Your task to perform on an android device: toggle translation in the chrome app Image 0: 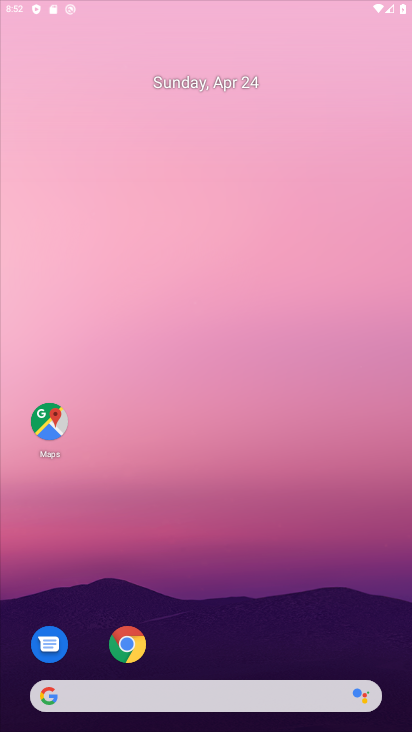
Step 0: press home button
Your task to perform on an android device: toggle translation in the chrome app Image 1: 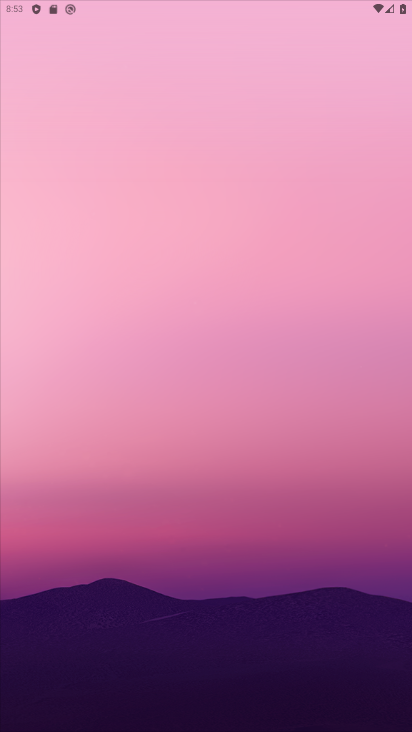
Step 1: press home button
Your task to perform on an android device: toggle translation in the chrome app Image 2: 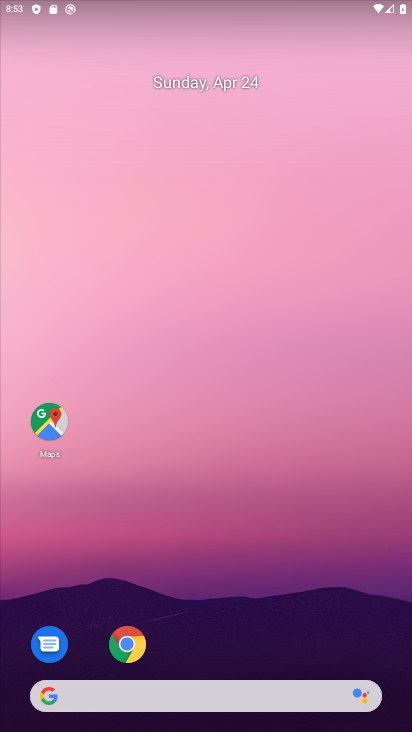
Step 2: drag from (184, 515) to (184, 11)
Your task to perform on an android device: toggle translation in the chrome app Image 3: 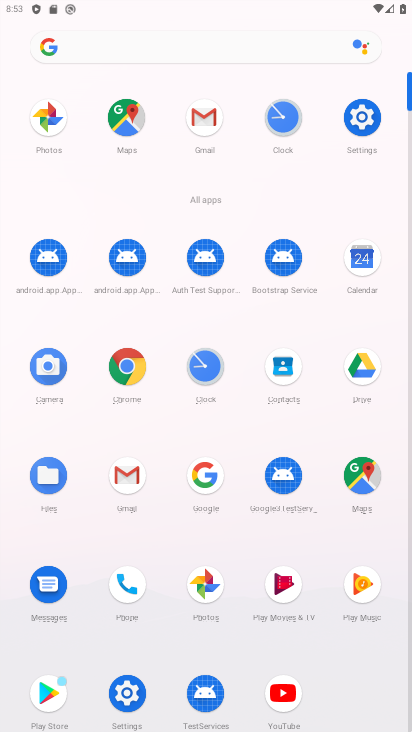
Step 3: click (134, 368)
Your task to perform on an android device: toggle translation in the chrome app Image 4: 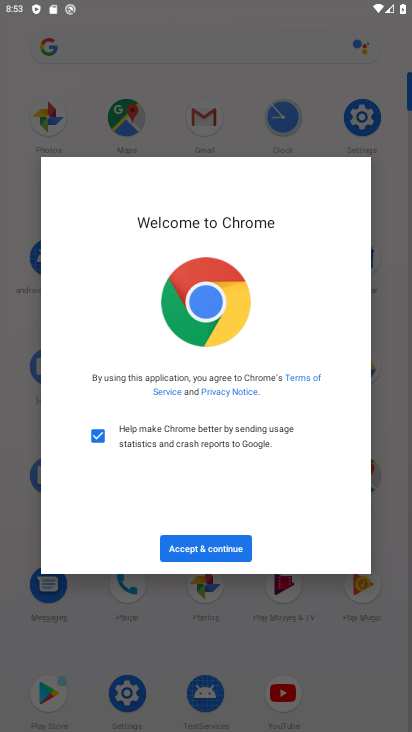
Step 4: click (224, 551)
Your task to perform on an android device: toggle translation in the chrome app Image 5: 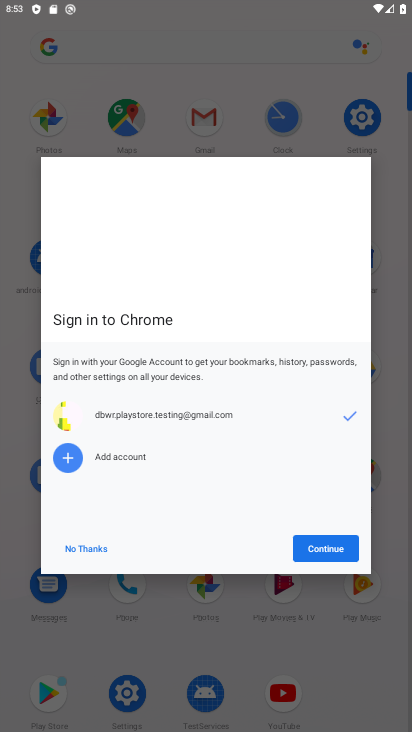
Step 5: click (342, 551)
Your task to perform on an android device: toggle translation in the chrome app Image 6: 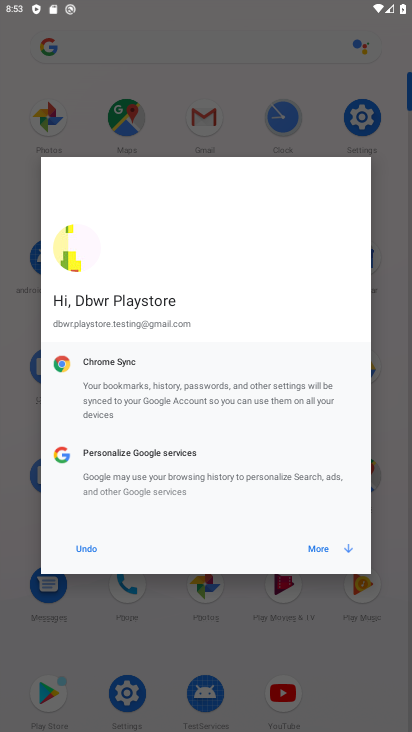
Step 6: click (332, 548)
Your task to perform on an android device: toggle translation in the chrome app Image 7: 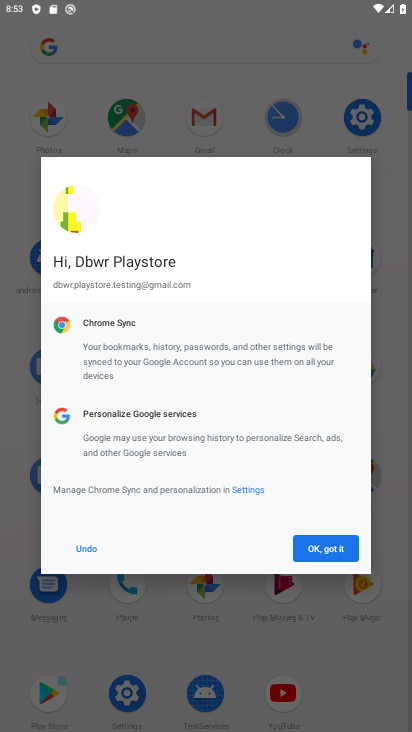
Step 7: click (332, 548)
Your task to perform on an android device: toggle translation in the chrome app Image 8: 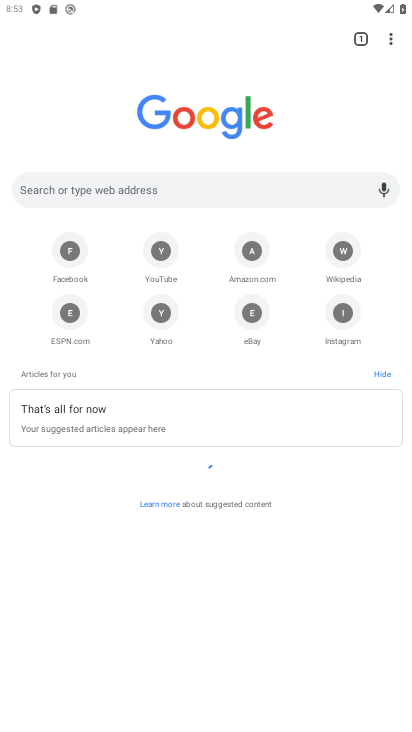
Step 8: drag from (390, 34) to (265, 319)
Your task to perform on an android device: toggle translation in the chrome app Image 9: 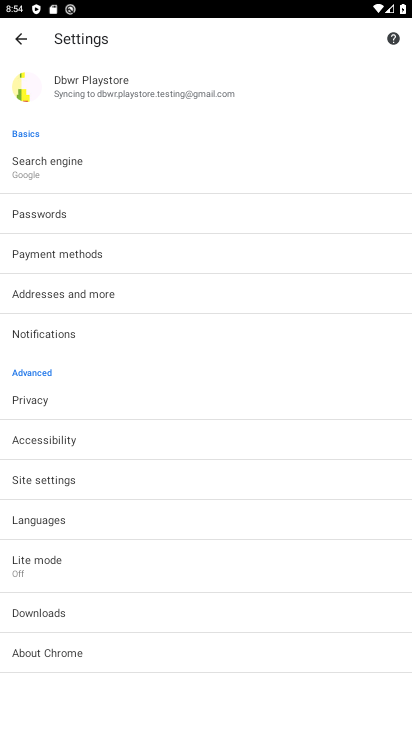
Step 9: click (46, 521)
Your task to perform on an android device: toggle translation in the chrome app Image 10: 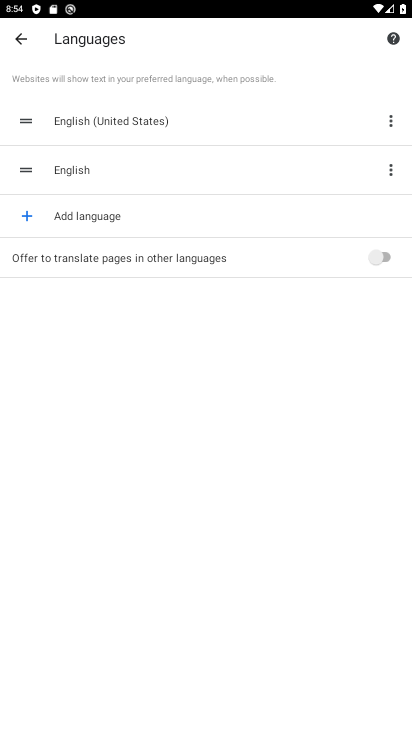
Step 10: click (183, 265)
Your task to perform on an android device: toggle translation in the chrome app Image 11: 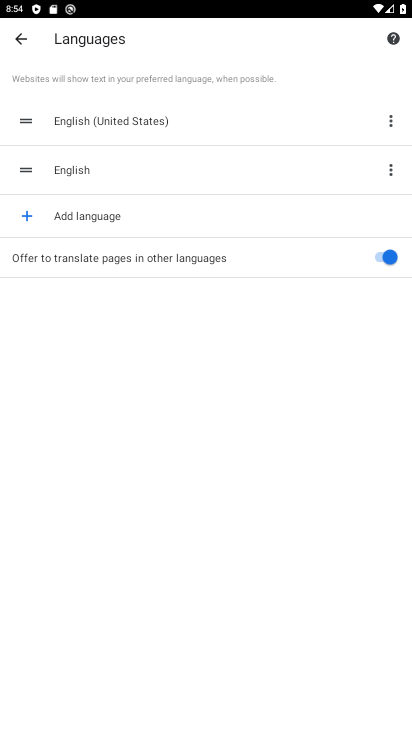
Step 11: task complete